Your task to perform on an android device: open device folders in google photos Image 0: 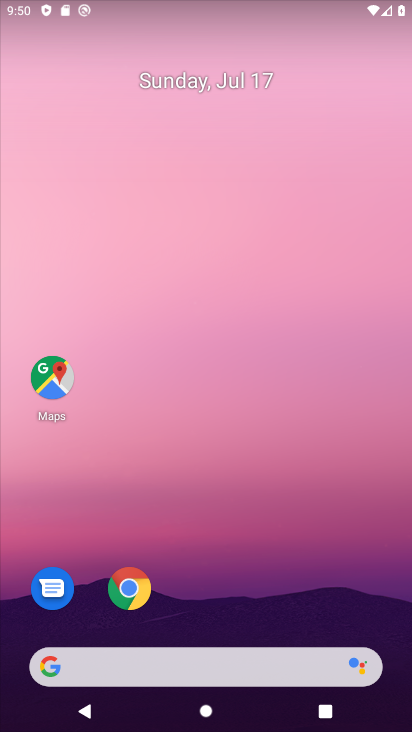
Step 0: drag from (262, 563) to (191, 46)
Your task to perform on an android device: open device folders in google photos Image 1: 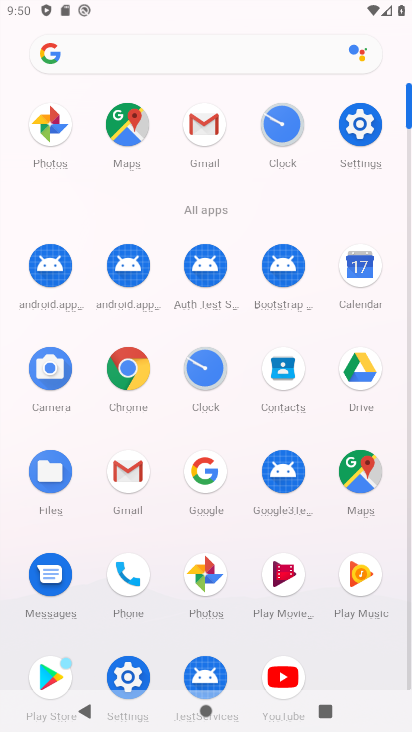
Step 1: click (47, 122)
Your task to perform on an android device: open device folders in google photos Image 2: 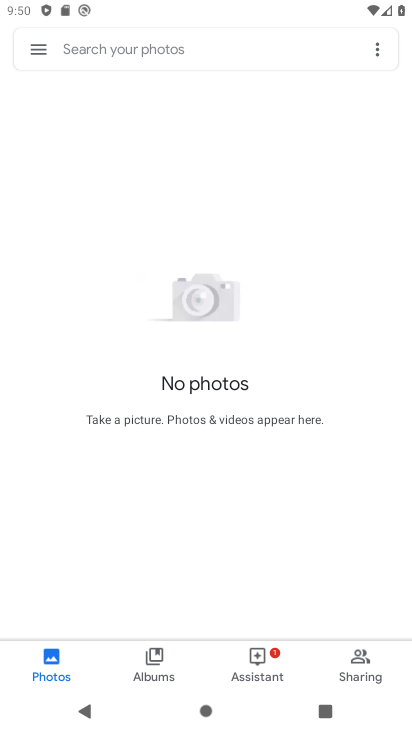
Step 2: click (35, 53)
Your task to perform on an android device: open device folders in google photos Image 3: 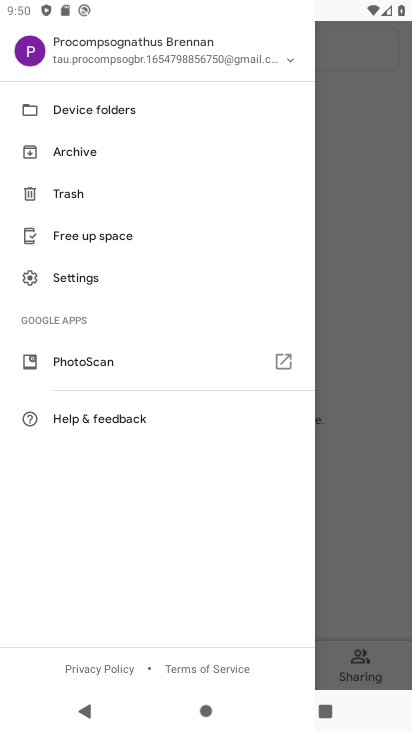
Step 3: click (87, 106)
Your task to perform on an android device: open device folders in google photos Image 4: 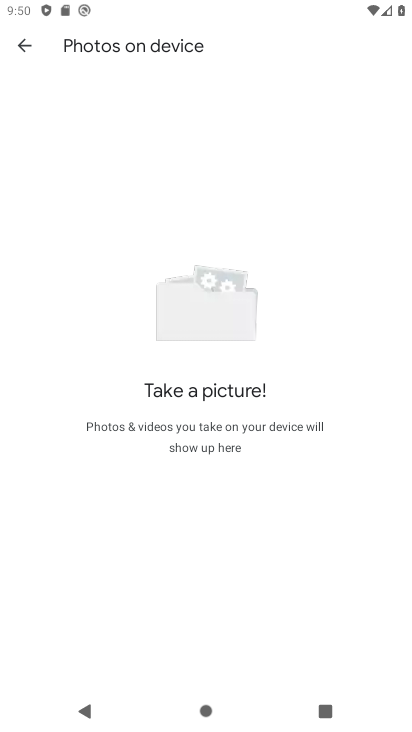
Step 4: task complete